Your task to perform on an android device: Open calendar and show me the second week of next month Image 0: 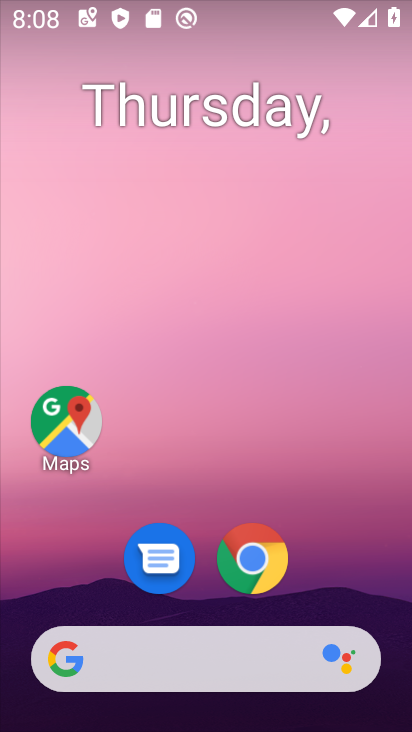
Step 0: drag from (209, 622) to (249, 237)
Your task to perform on an android device: Open calendar and show me the second week of next month Image 1: 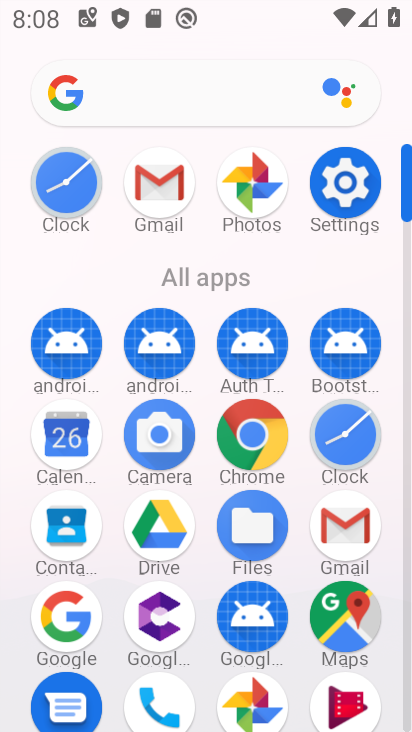
Step 1: click (74, 443)
Your task to perform on an android device: Open calendar and show me the second week of next month Image 2: 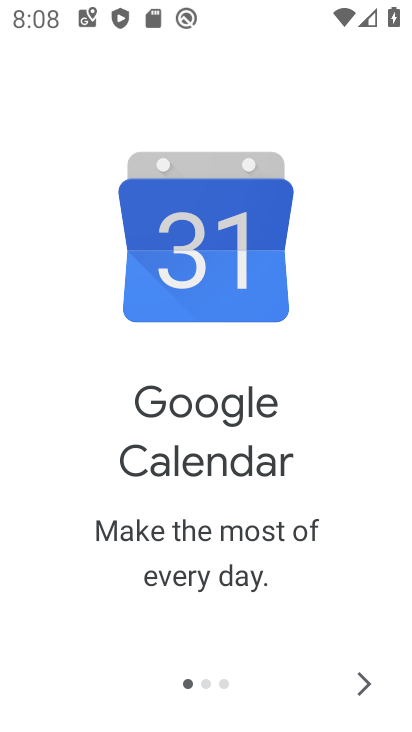
Step 2: click (367, 685)
Your task to perform on an android device: Open calendar and show me the second week of next month Image 3: 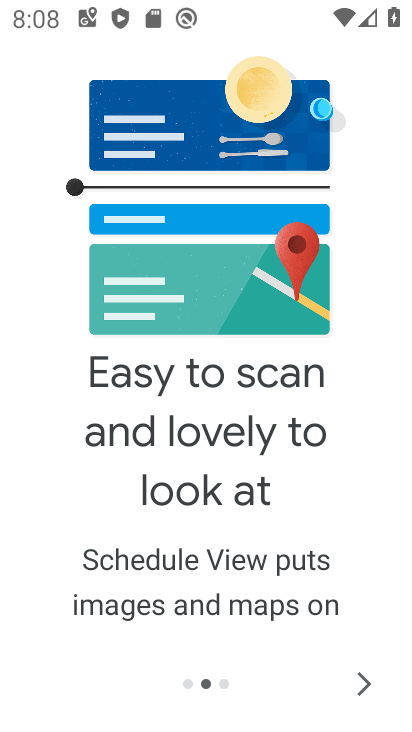
Step 3: click (367, 685)
Your task to perform on an android device: Open calendar and show me the second week of next month Image 4: 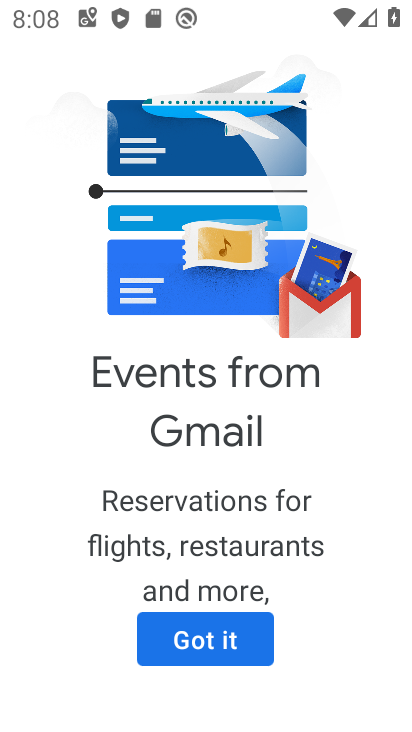
Step 4: click (242, 654)
Your task to perform on an android device: Open calendar and show me the second week of next month Image 5: 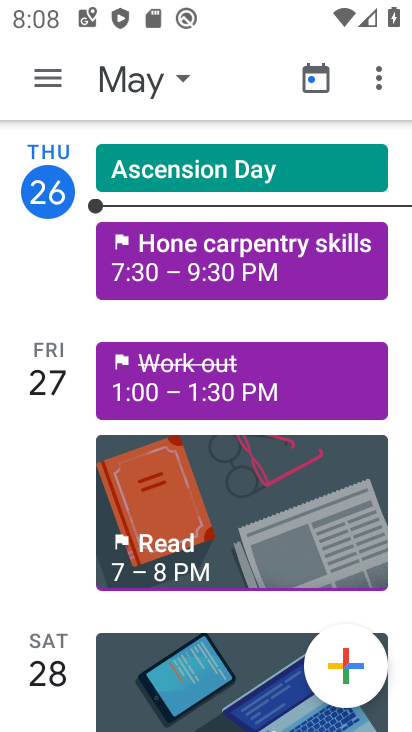
Step 5: click (123, 75)
Your task to perform on an android device: Open calendar and show me the second week of next month Image 6: 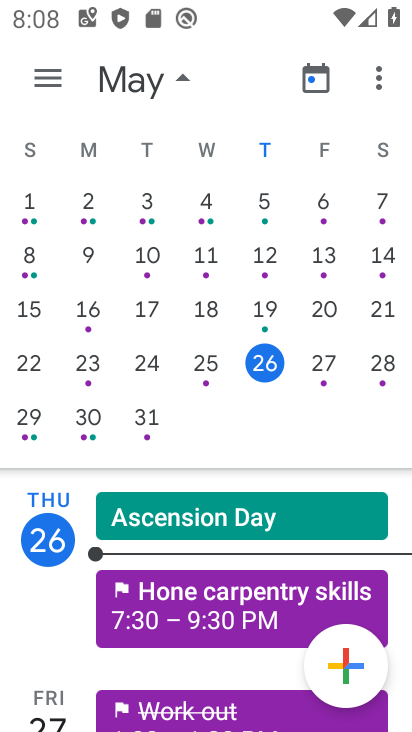
Step 6: drag from (321, 325) to (66, 369)
Your task to perform on an android device: Open calendar and show me the second week of next month Image 7: 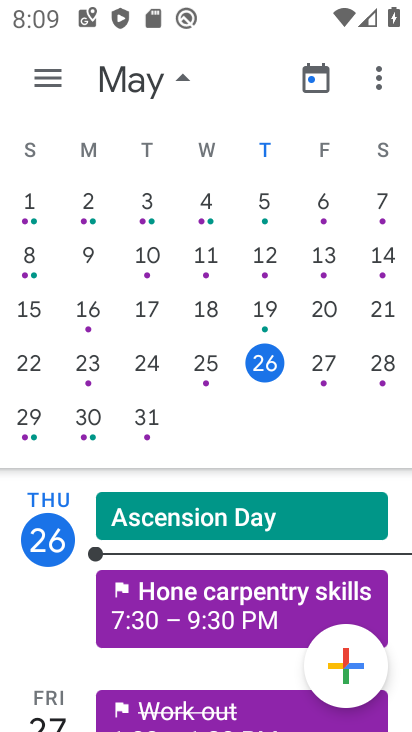
Step 7: drag from (335, 426) to (25, 435)
Your task to perform on an android device: Open calendar and show me the second week of next month Image 8: 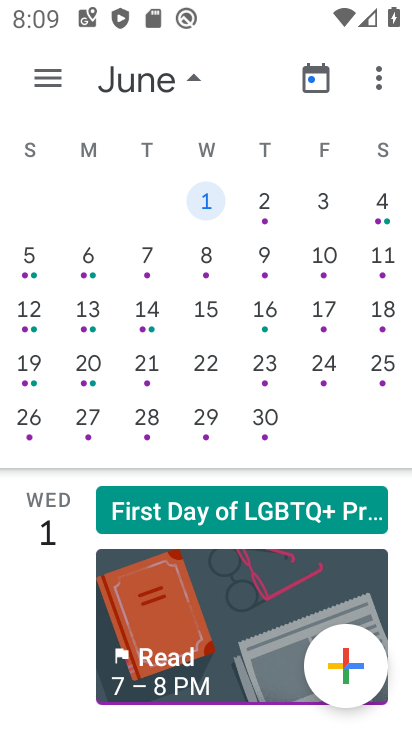
Step 8: click (157, 380)
Your task to perform on an android device: Open calendar and show me the second week of next month Image 9: 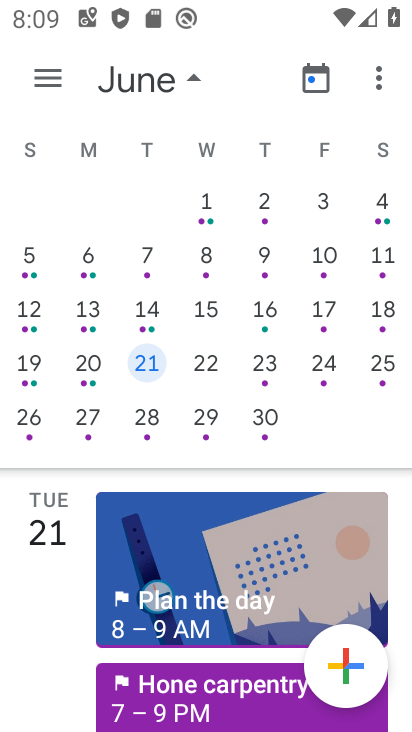
Step 9: click (32, 262)
Your task to perform on an android device: Open calendar and show me the second week of next month Image 10: 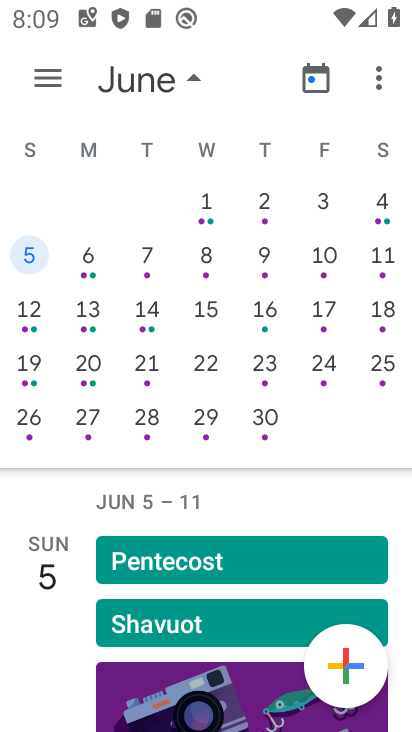
Step 10: task complete